Your task to perform on an android device: Go to settings Image 0: 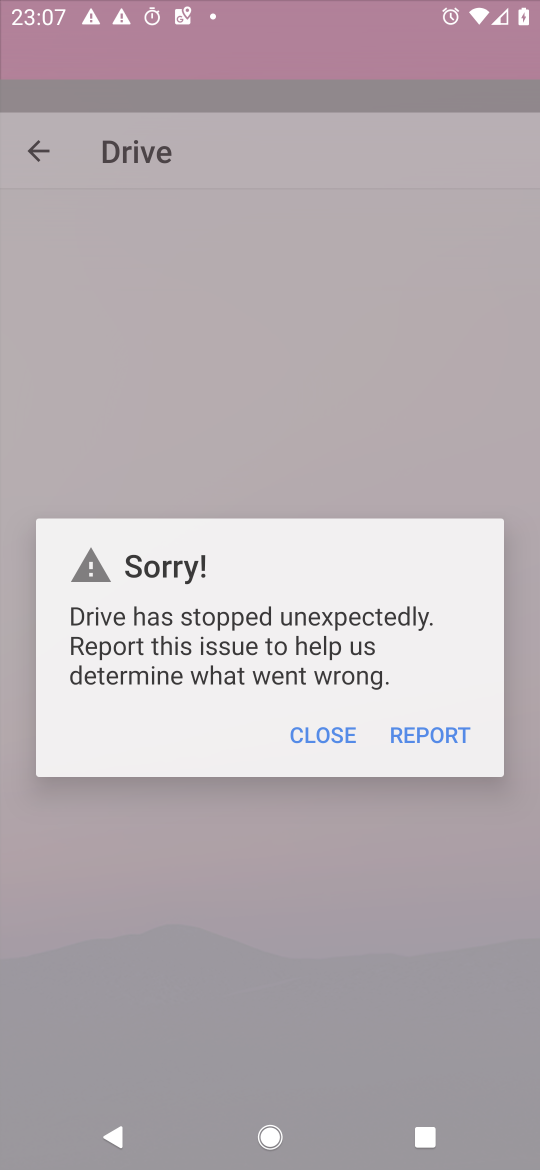
Step 0: click (271, 333)
Your task to perform on an android device: Go to settings Image 1: 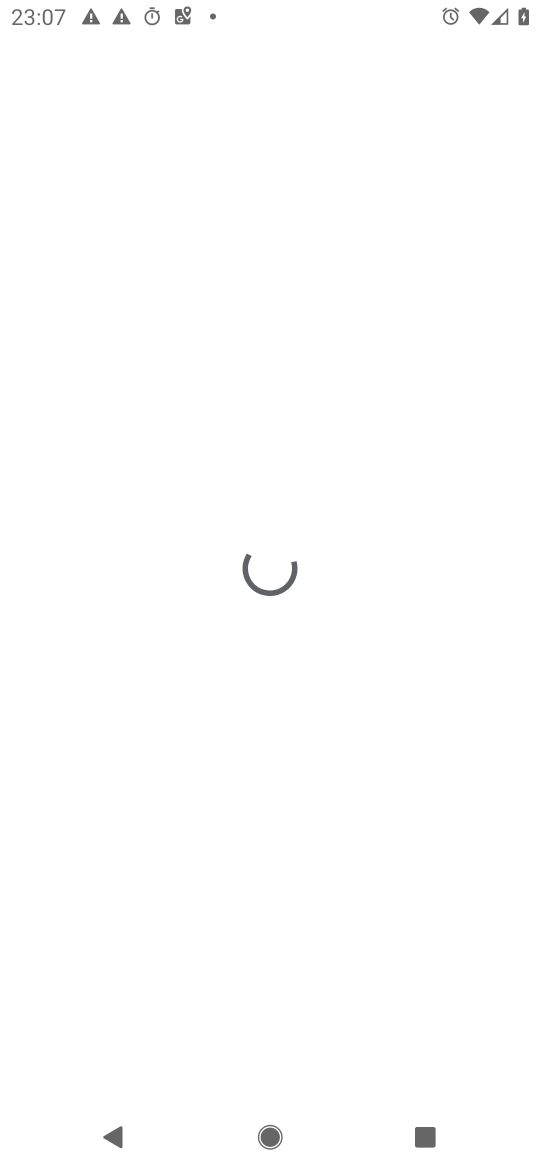
Step 1: press home button
Your task to perform on an android device: Go to settings Image 2: 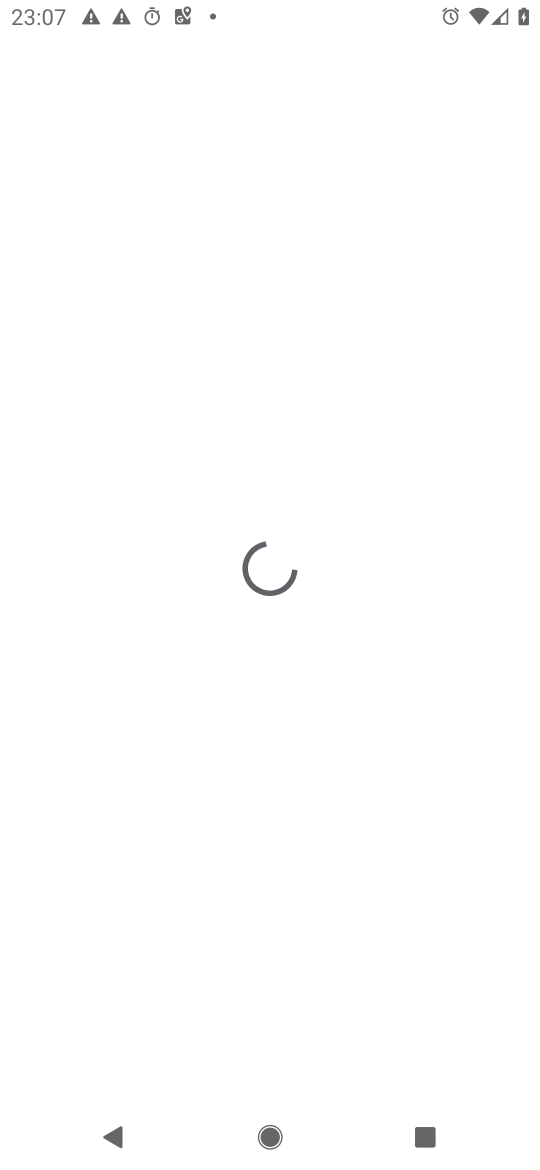
Step 2: click (373, 404)
Your task to perform on an android device: Go to settings Image 3: 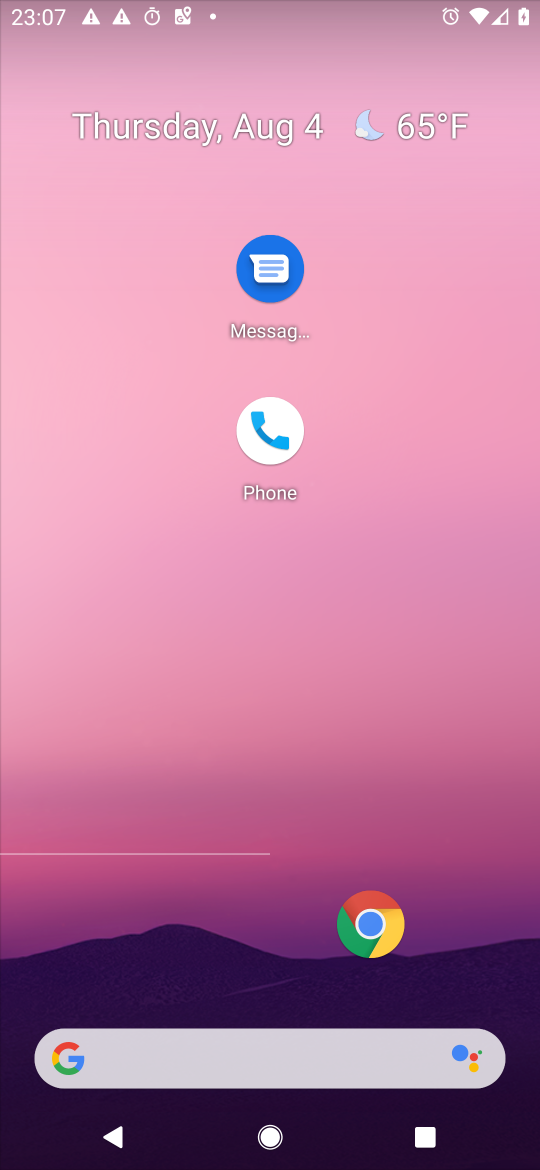
Step 3: drag from (267, 966) to (385, 165)
Your task to perform on an android device: Go to settings Image 4: 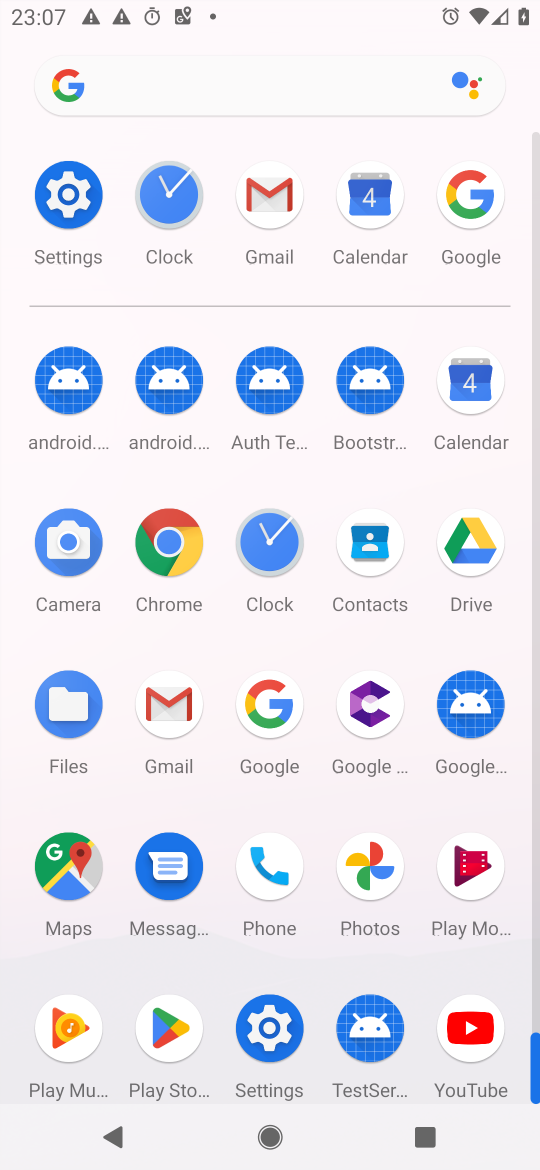
Step 4: click (76, 195)
Your task to perform on an android device: Go to settings Image 5: 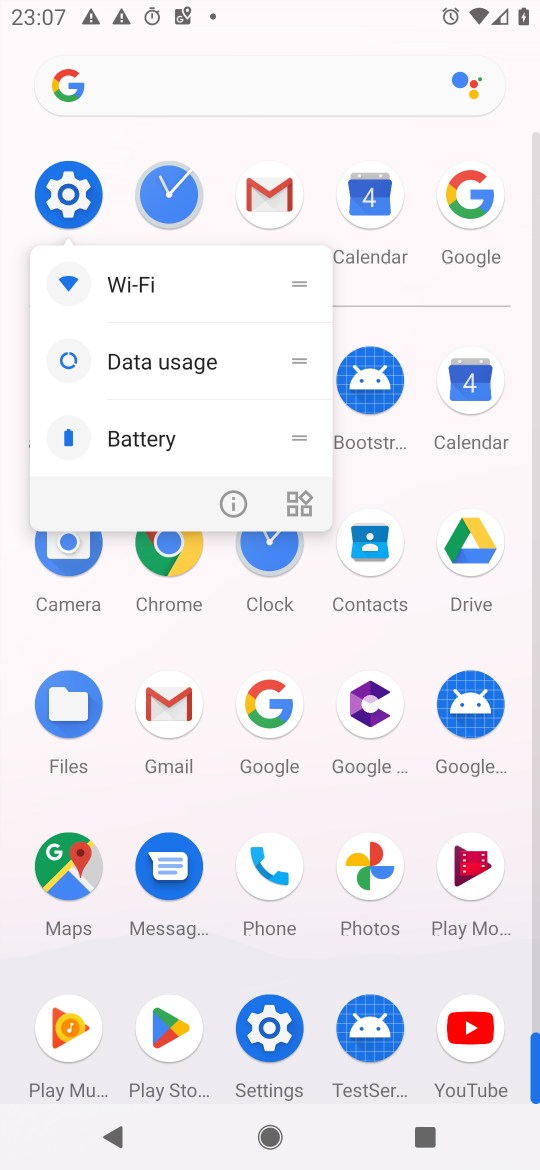
Step 5: click (230, 499)
Your task to perform on an android device: Go to settings Image 6: 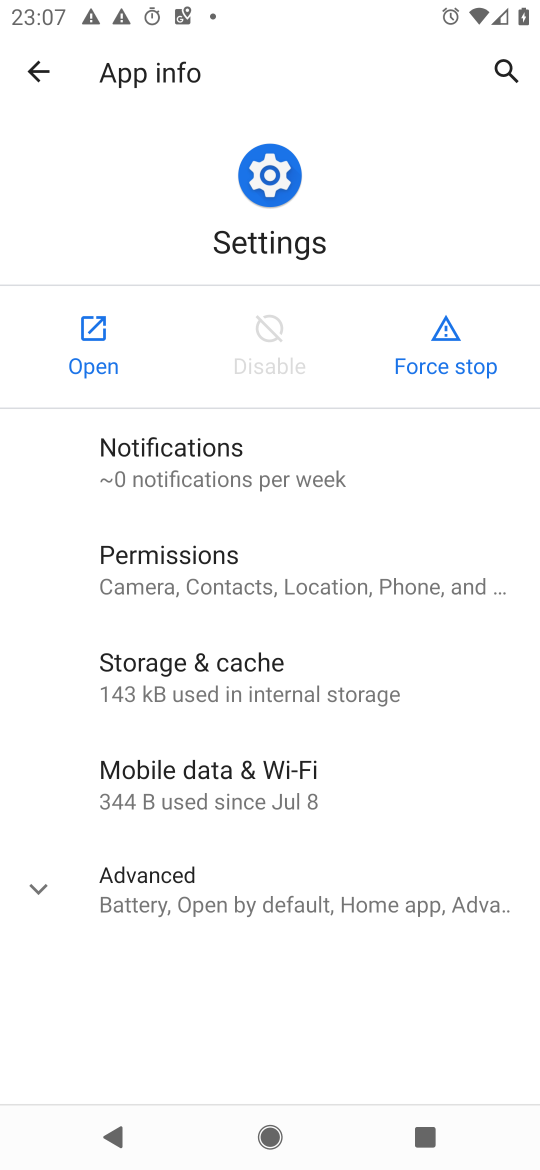
Step 6: click (89, 358)
Your task to perform on an android device: Go to settings Image 7: 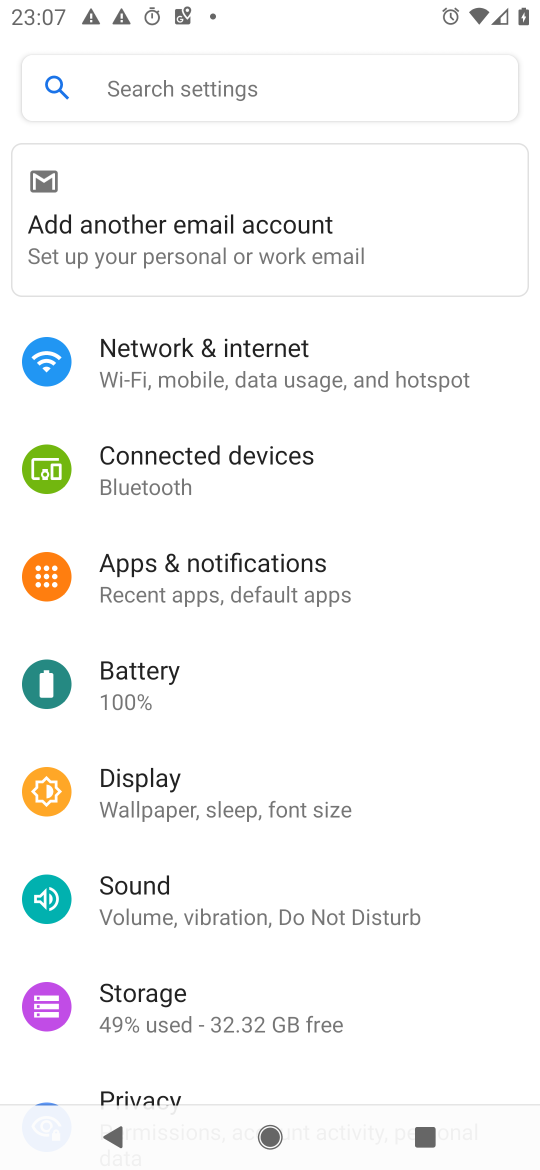
Step 7: task complete